Your task to perform on an android device: Go to battery settings Image 0: 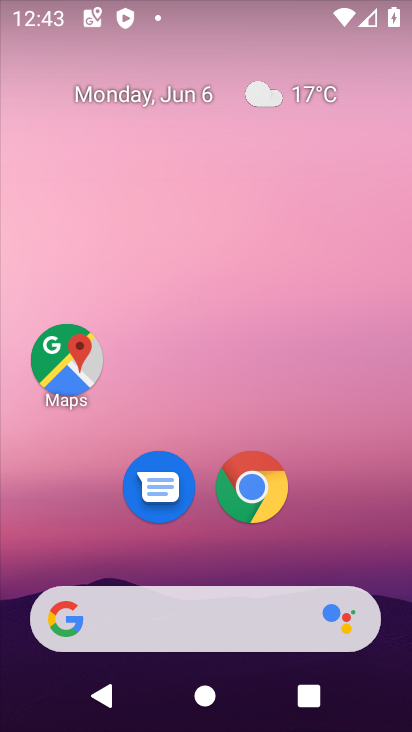
Step 0: drag from (167, 564) to (223, 84)
Your task to perform on an android device: Go to battery settings Image 1: 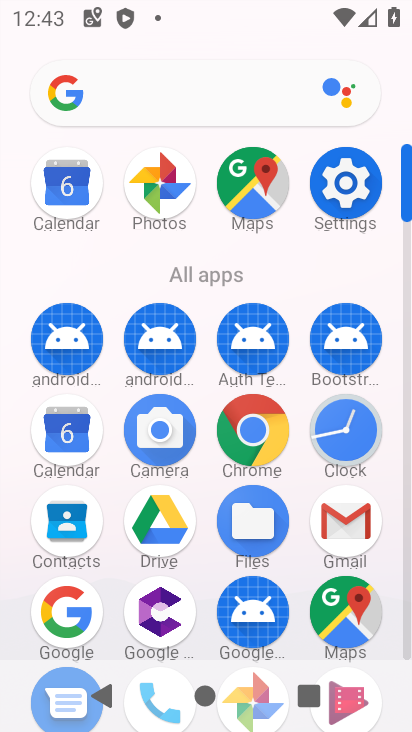
Step 1: click (343, 180)
Your task to perform on an android device: Go to battery settings Image 2: 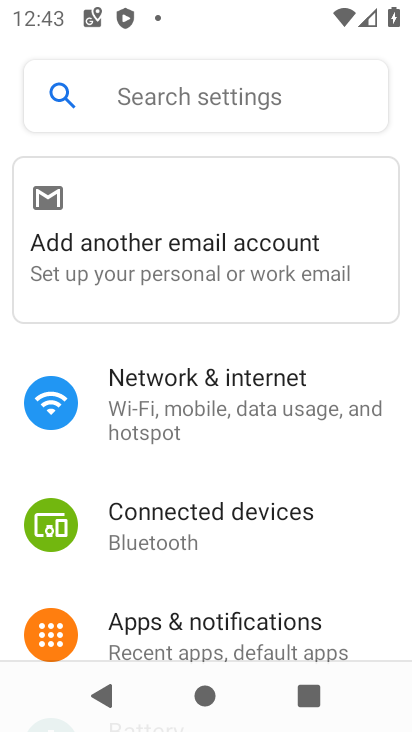
Step 2: drag from (180, 612) to (274, 169)
Your task to perform on an android device: Go to battery settings Image 3: 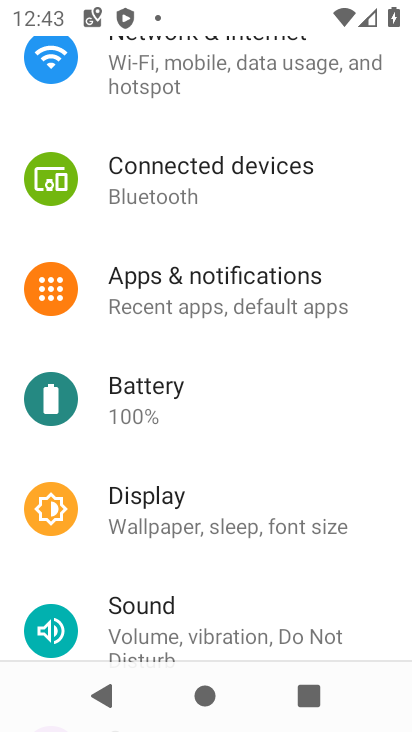
Step 3: click (173, 399)
Your task to perform on an android device: Go to battery settings Image 4: 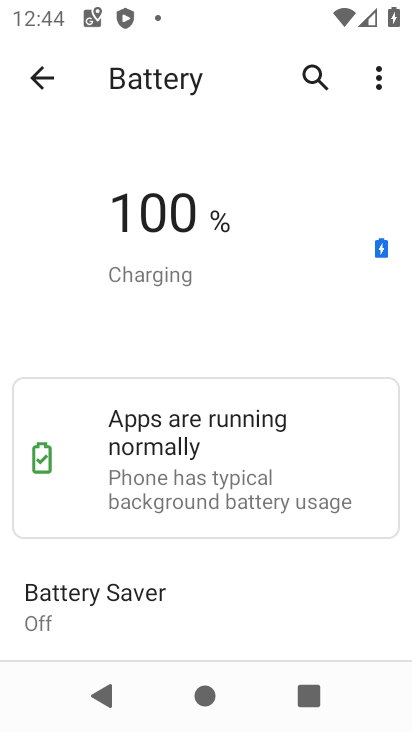
Step 4: task complete